Your task to perform on an android device: turn on showing notifications on the lock screen Image 0: 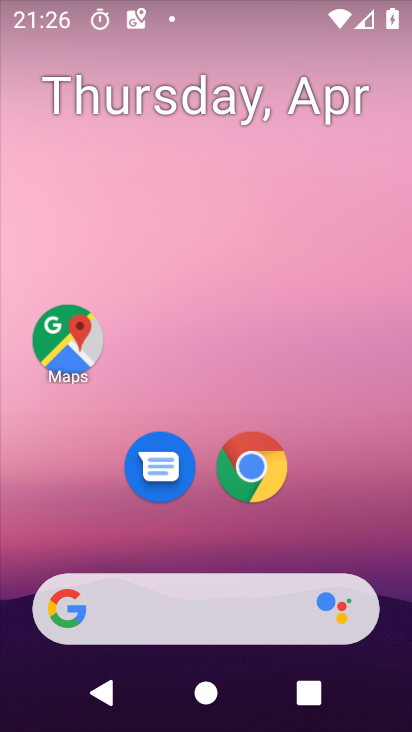
Step 0: drag from (224, 564) to (401, 331)
Your task to perform on an android device: turn on showing notifications on the lock screen Image 1: 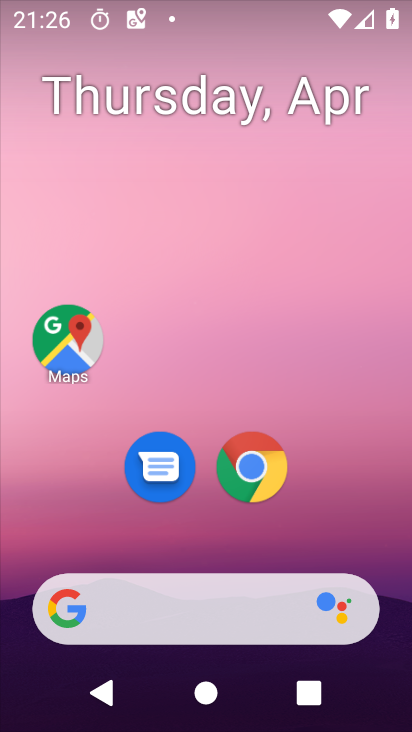
Step 1: click (162, 193)
Your task to perform on an android device: turn on showing notifications on the lock screen Image 2: 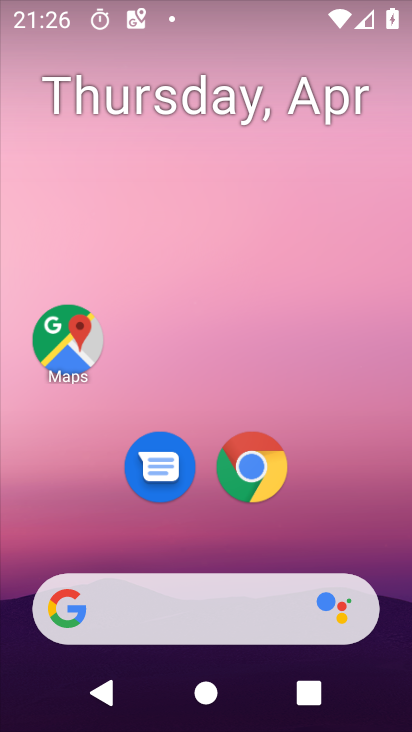
Step 2: drag from (191, 526) to (139, 2)
Your task to perform on an android device: turn on showing notifications on the lock screen Image 3: 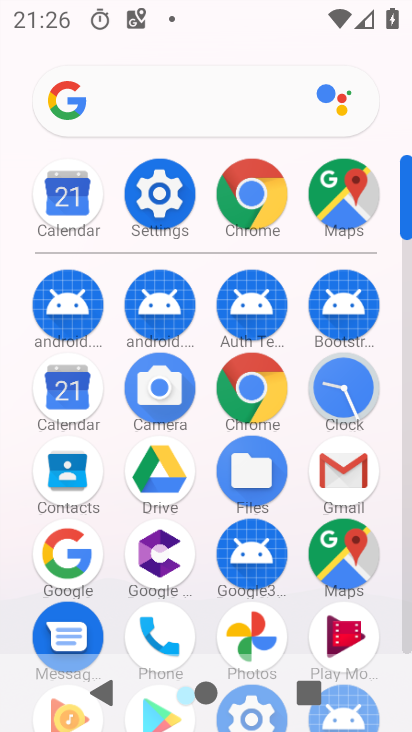
Step 3: click (171, 206)
Your task to perform on an android device: turn on showing notifications on the lock screen Image 4: 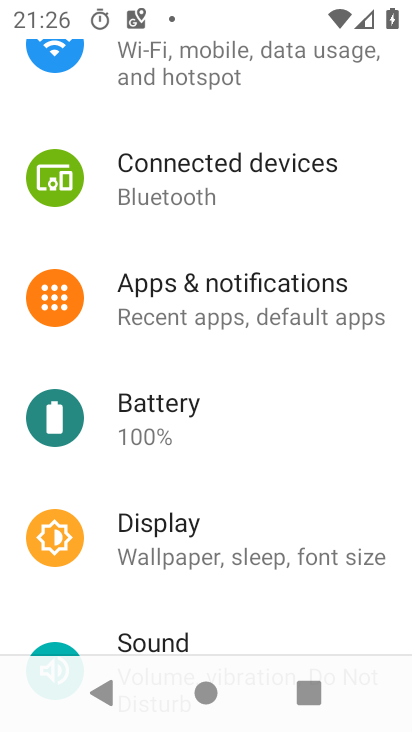
Step 4: click (209, 301)
Your task to perform on an android device: turn on showing notifications on the lock screen Image 5: 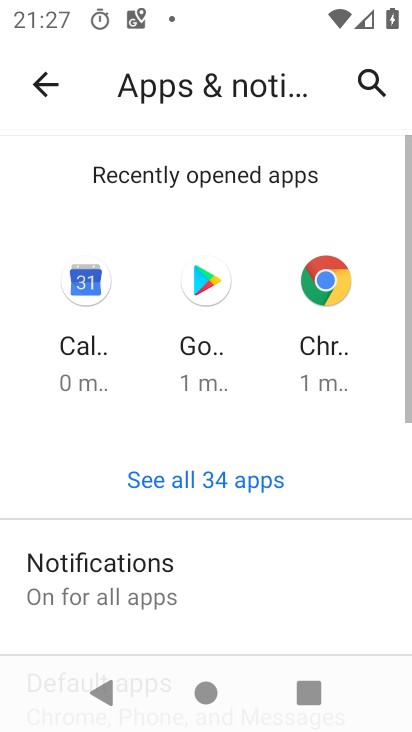
Step 5: drag from (195, 577) to (215, 66)
Your task to perform on an android device: turn on showing notifications on the lock screen Image 6: 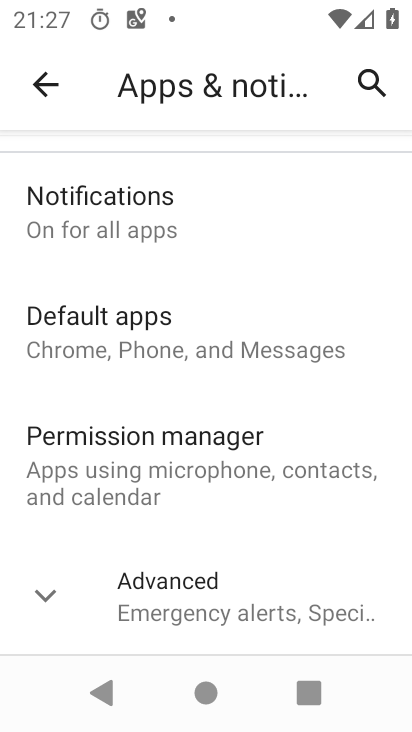
Step 6: click (135, 224)
Your task to perform on an android device: turn on showing notifications on the lock screen Image 7: 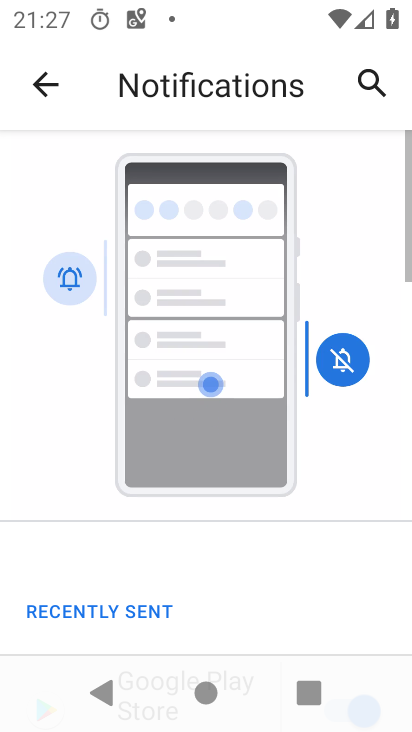
Step 7: drag from (253, 607) to (231, 19)
Your task to perform on an android device: turn on showing notifications on the lock screen Image 8: 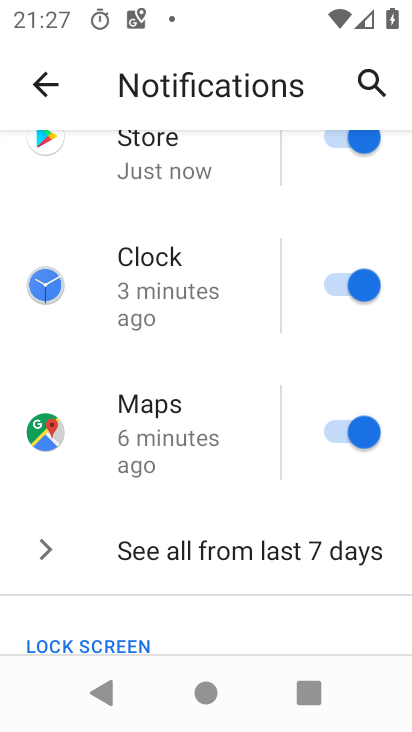
Step 8: drag from (270, 617) to (268, 131)
Your task to perform on an android device: turn on showing notifications on the lock screen Image 9: 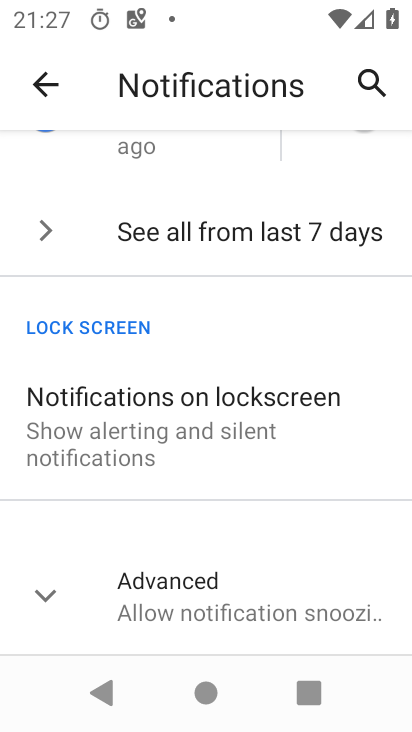
Step 9: click (152, 435)
Your task to perform on an android device: turn on showing notifications on the lock screen Image 10: 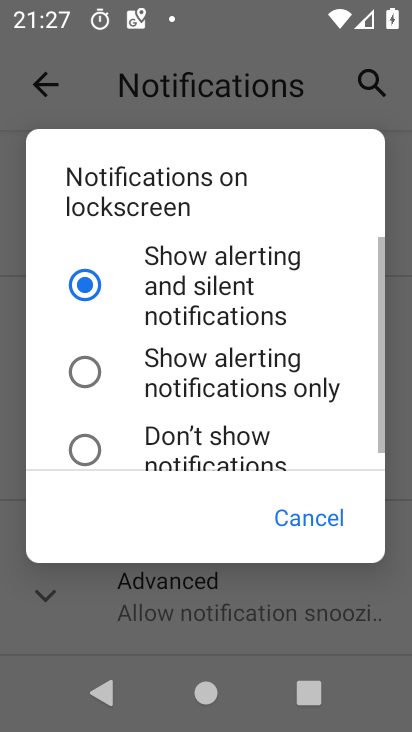
Step 10: click (179, 284)
Your task to perform on an android device: turn on showing notifications on the lock screen Image 11: 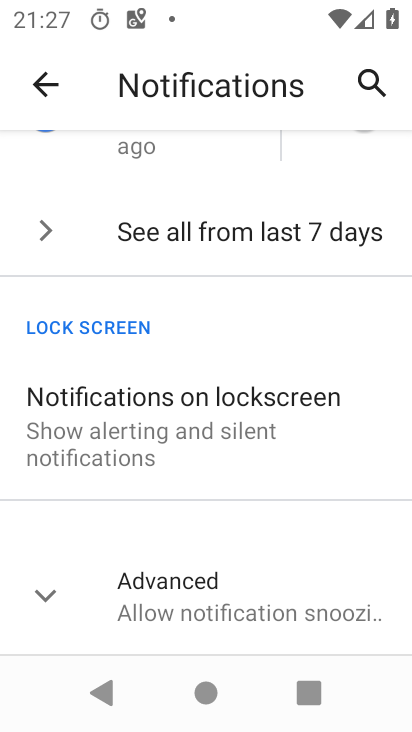
Step 11: task complete